Your task to perform on an android device: Open calendar and show me the first week of next month Image 0: 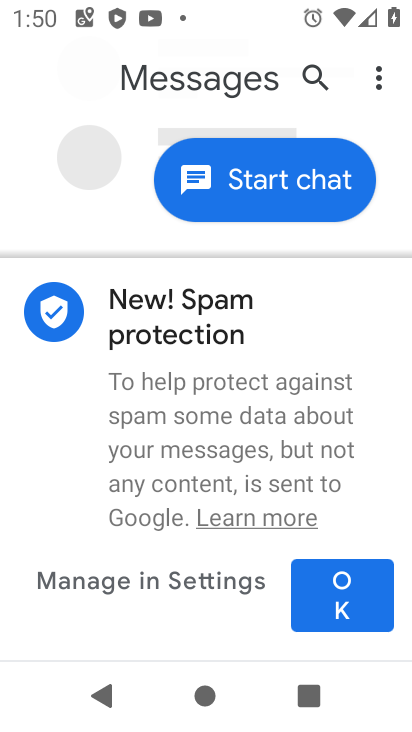
Step 0: press back button
Your task to perform on an android device: Open calendar and show me the first week of next month Image 1: 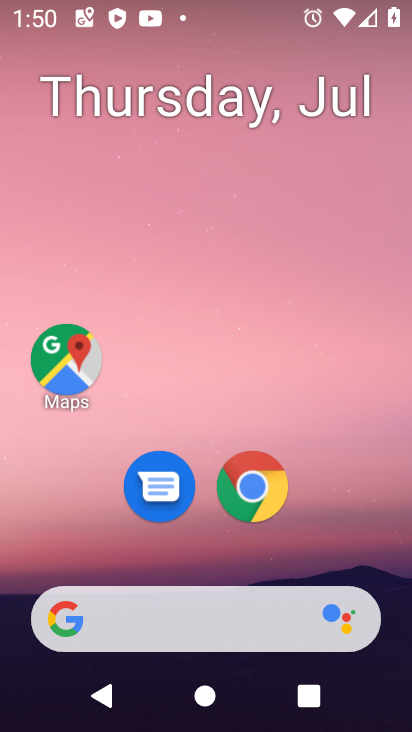
Step 1: drag from (88, 547) to (155, 42)
Your task to perform on an android device: Open calendar and show me the first week of next month Image 2: 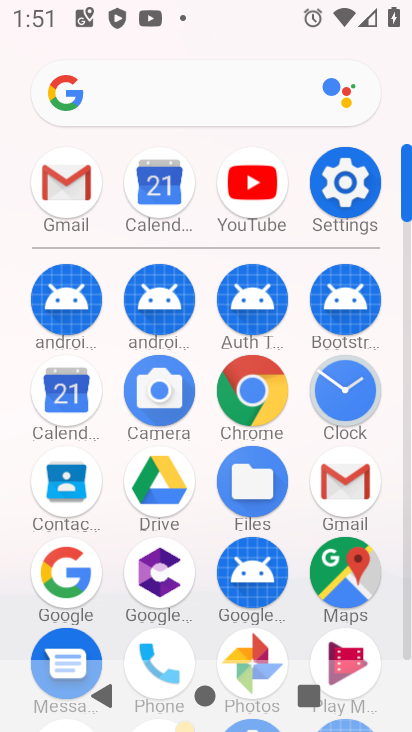
Step 2: click (60, 406)
Your task to perform on an android device: Open calendar and show me the first week of next month Image 3: 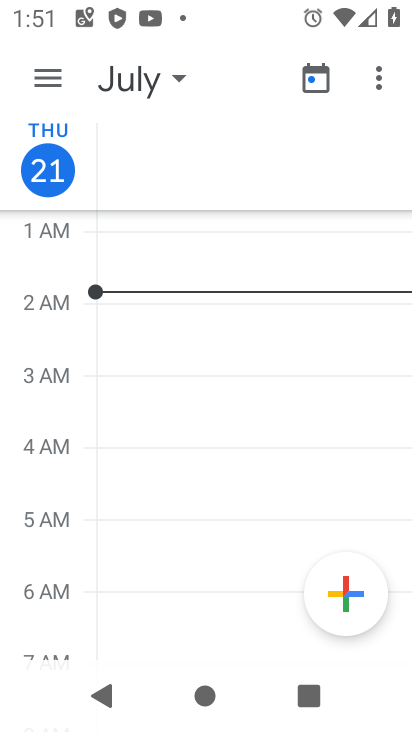
Step 3: click (162, 77)
Your task to perform on an android device: Open calendar and show me the first week of next month Image 4: 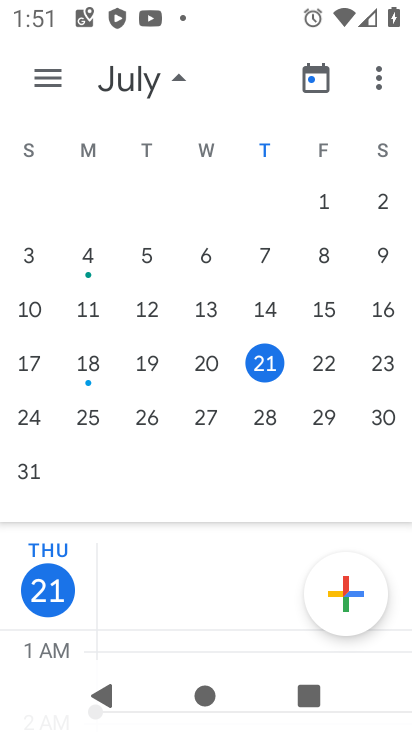
Step 4: task complete